Your task to perform on an android device: open chrome privacy settings Image 0: 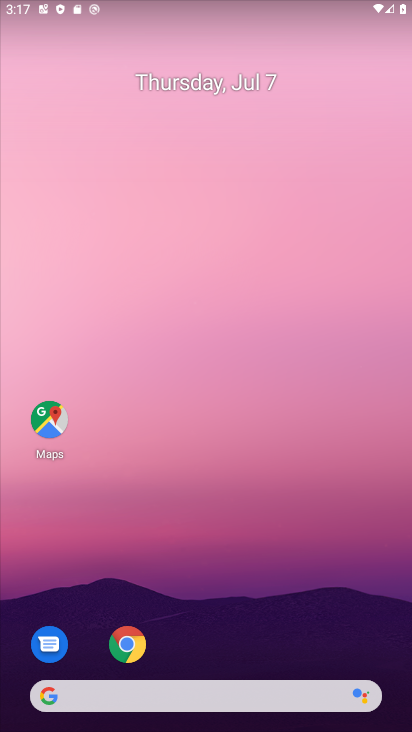
Step 0: drag from (234, 660) to (202, 75)
Your task to perform on an android device: open chrome privacy settings Image 1: 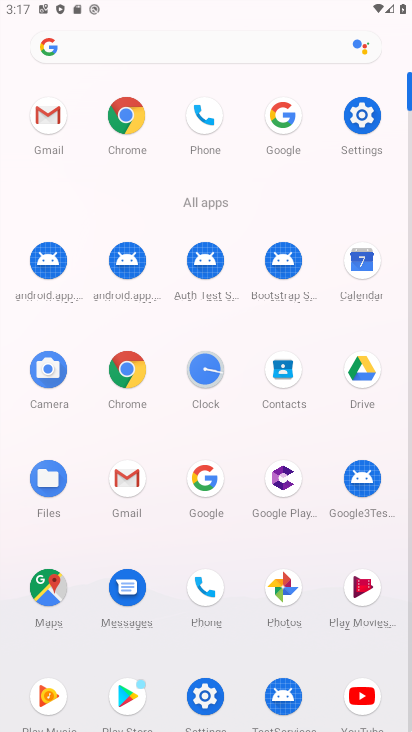
Step 1: drag from (201, 685) to (207, 338)
Your task to perform on an android device: open chrome privacy settings Image 2: 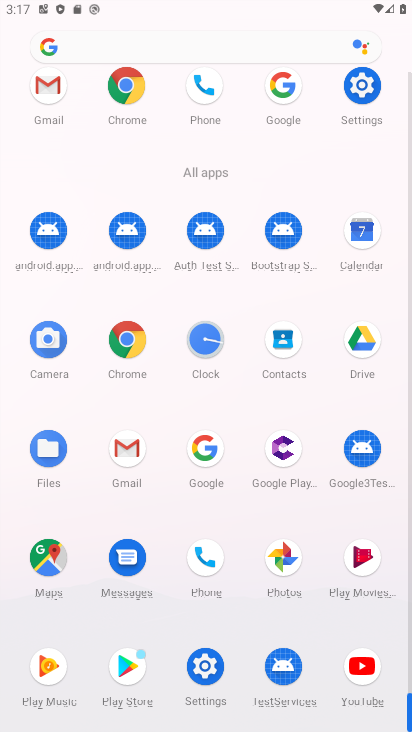
Step 2: click (134, 344)
Your task to perform on an android device: open chrome privacy settings Image 3: 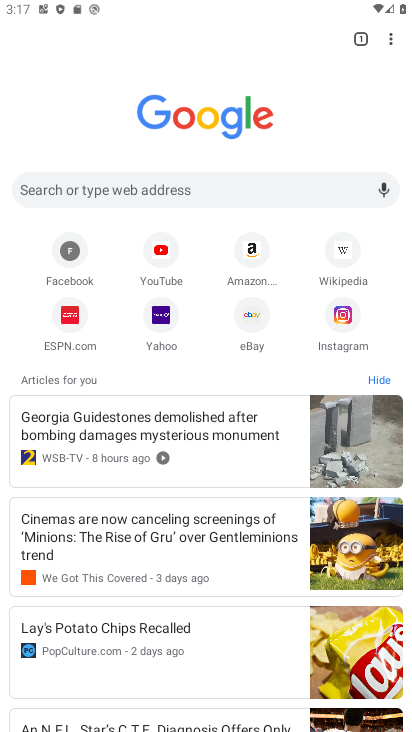
Step 3: click (387, 45)
Your task to perform on an android device: open chrome privacy settings Image 4: 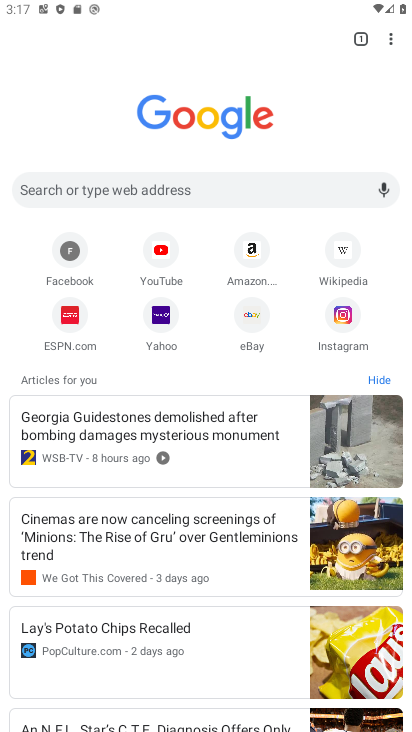
Step 4: drag from (389, 40) to (253, 315)
Your task to perform on an android device: open chrome privacy settings Image 5: 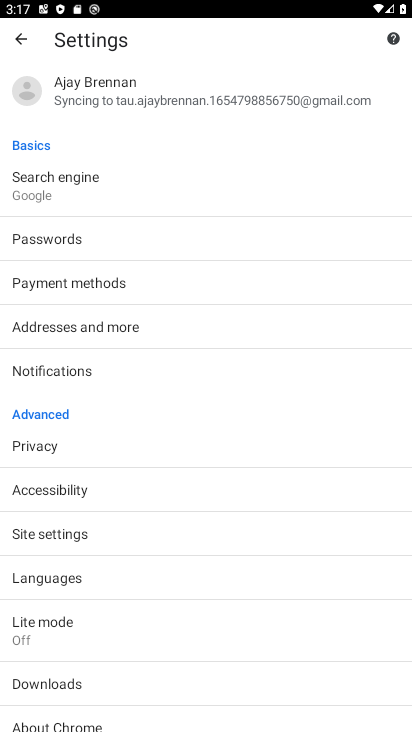
Step 5: click (67, 439)
Your task to perform on an android device: open chrome privacy settings Image 6: 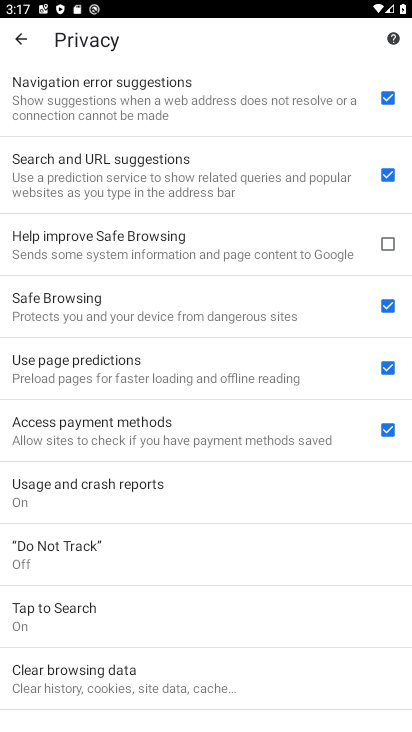
Step 6: task complete